Your task to perform on an android device: Turn off the flashlight Image 0: 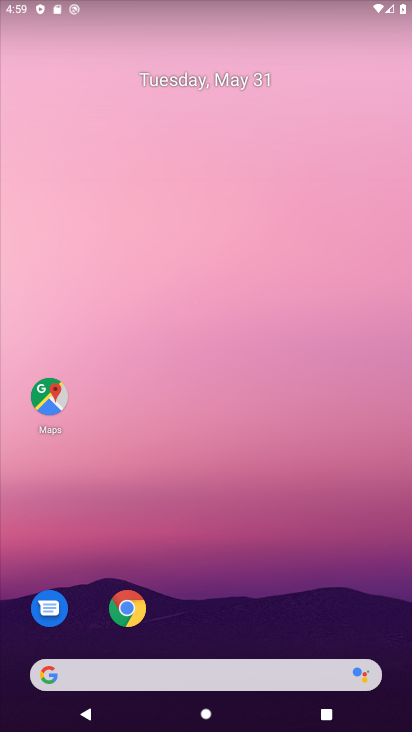
Step 0: drag from (264, 625) to (191, 140)
Your task to perform on an android device: Turn off the flashlight Image 1: 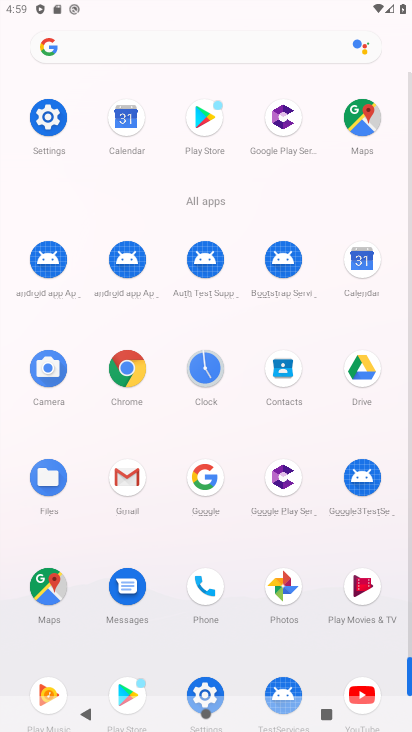
Step 1: click (47, 115)
Your task to perform on an android device: Turn off the flashlight Image 2: 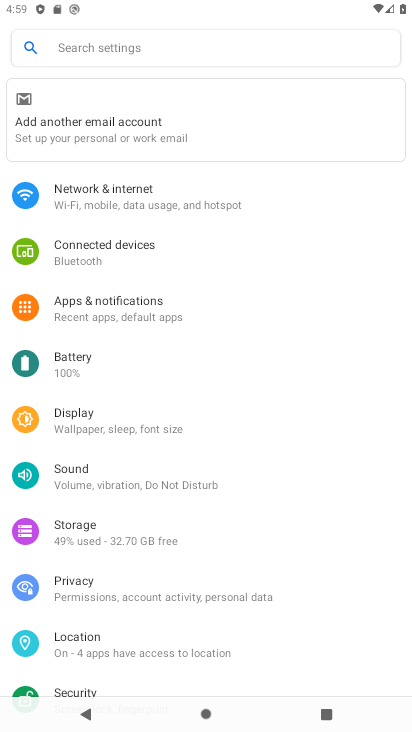
Step 2: drag from (120, 460) to (180, 380)
Your task to perform on an android device: Turn off the flashlight Image 3: 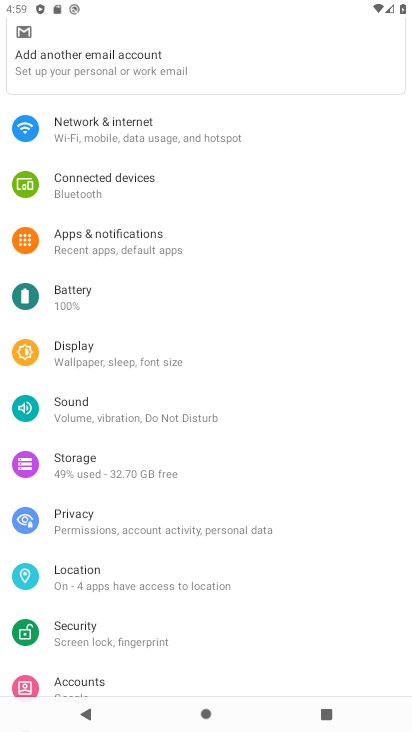
Step 3: click (164, 363)
Your task to perform on an android device: Turn off the flashlight Image 4: 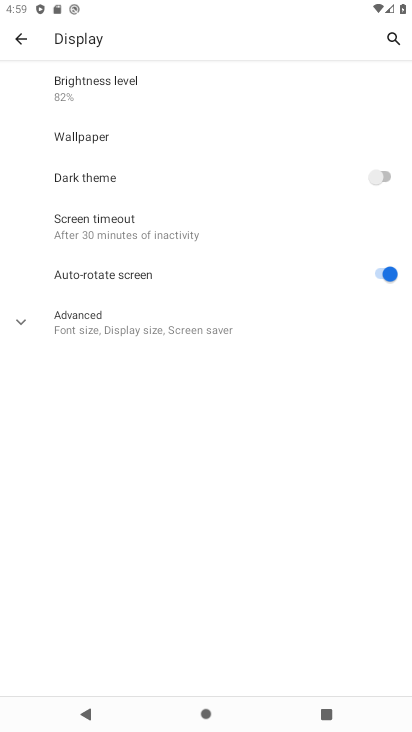
Step 4: click (132, 327)
Your task to perform on an android device: Turn off the flashlight Image 5: 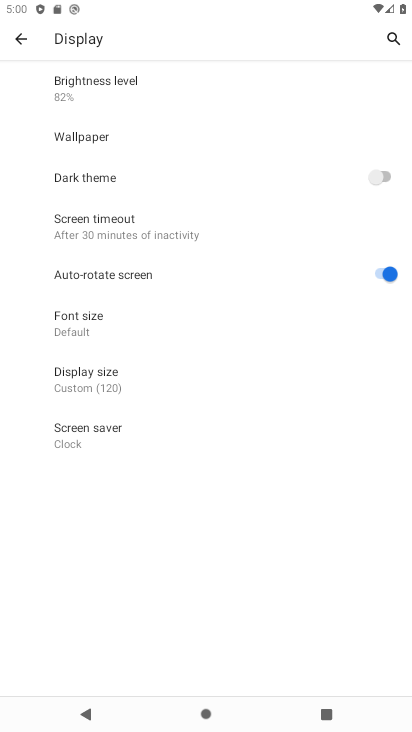
Step 5: task complete